Your task to perform on an android device: Open Yahoo.com Image 0: 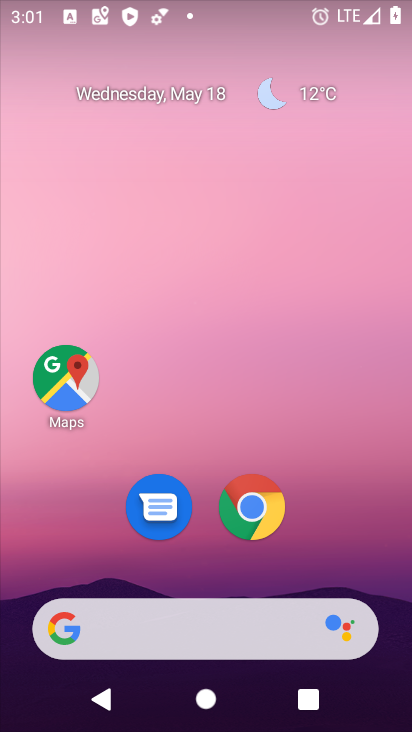
Step 0: click (245, 510)
Your task to perform on an android device: Open Yahoo.com Image 1: 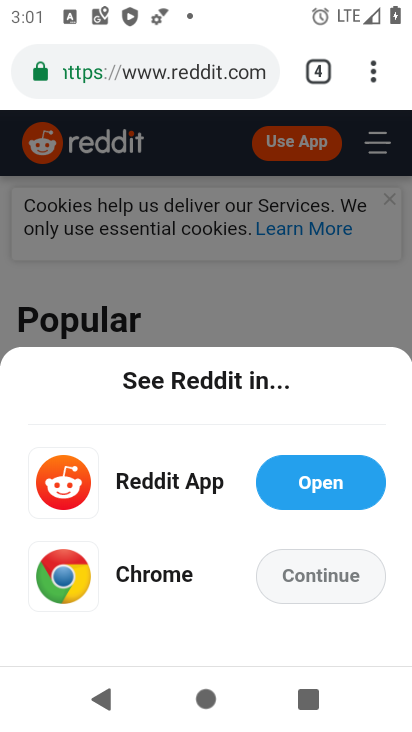
Step 1: click (150, 69)
Your task to perform on an android device: Open Yahoo.com Image 2: 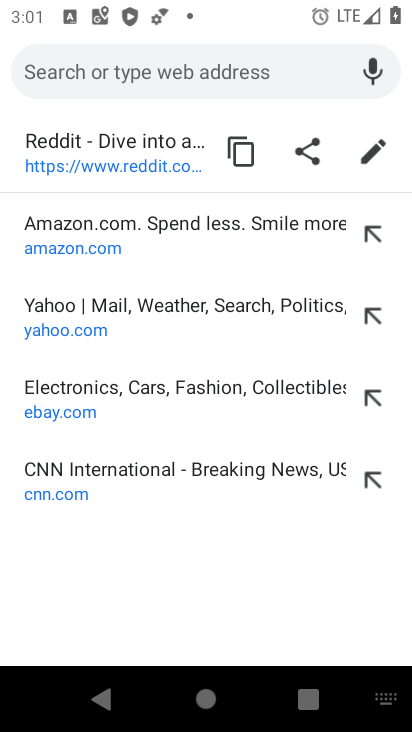
Step 2: type "yahoo.com"
Your task to perform on an android device: Open Yahoo.com Image 3: 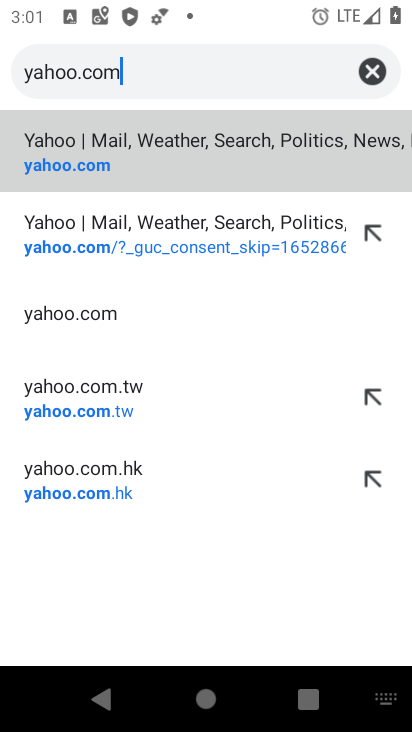
Step 3: click (24, 150)
Your task to perform on an android device: Open Yahoo.com Image 4: 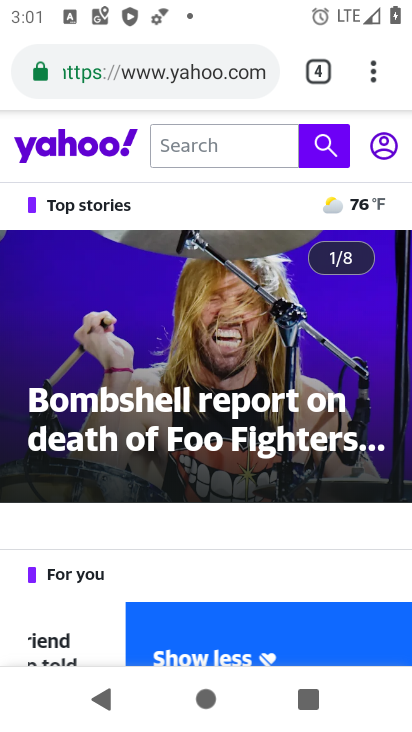
Step 4: task complete